Your task to perform on an android device: Open Chrome and go to settings Image 0: 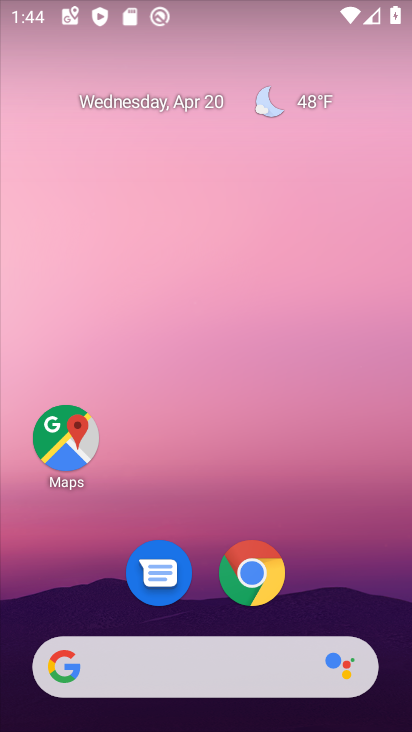
Step 0: drag from (193, 656) to (332, 40)
Your task to perform on an android device: Open Chrome and go to settings Image 1: 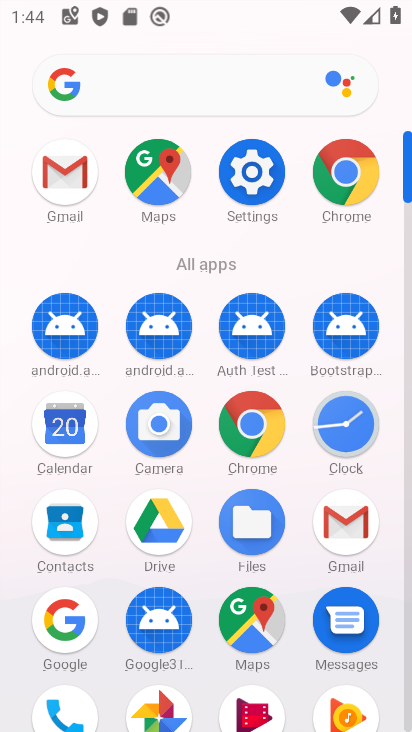
Step 1: click (348, 185)
Your task to perform on an android device: Open Chrome and go to settings Image 2: 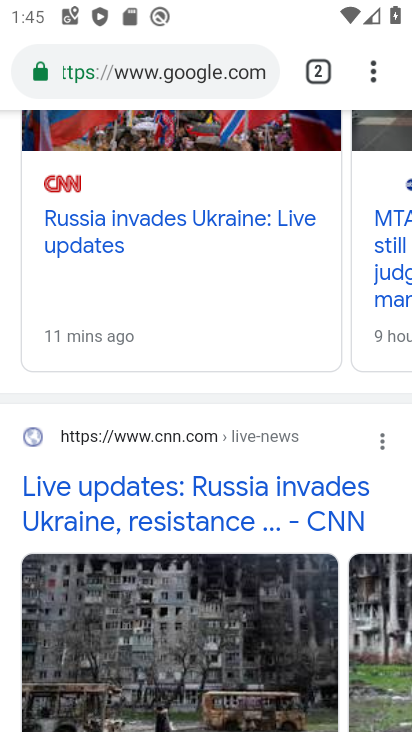
Step 2: click (372, 75)
Your task to perform on an android device: Open Chrome and go to settings Image 3: 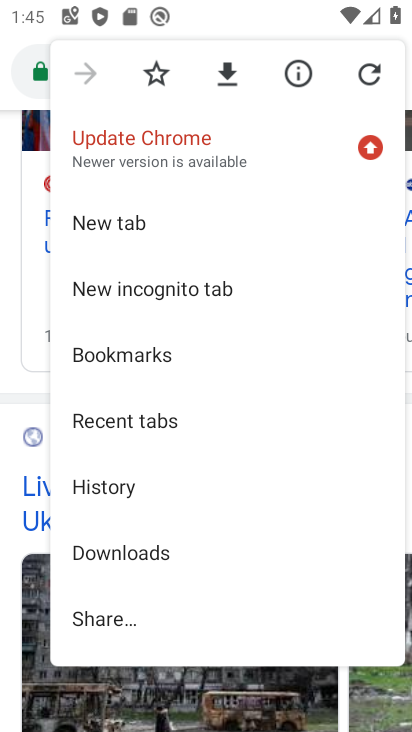
Step 3: drag from (211, 554) to (337, 167)
Your task to perform on an android device: Open Chrome and go to settings Image 4: 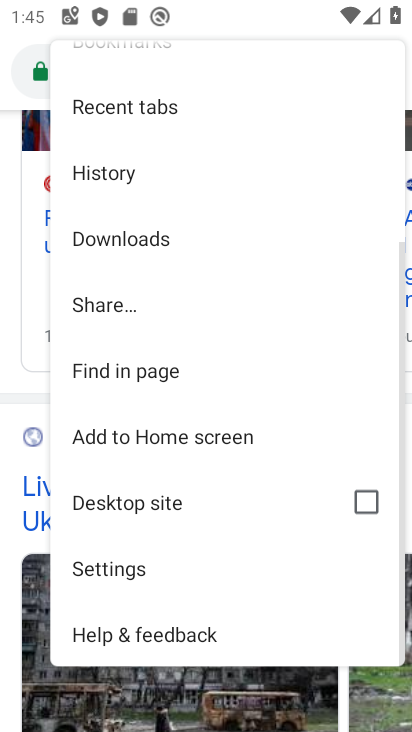
Step 4: click (116, 573)
Your task to perform on an android device: Open Chrome and go to settings Image 5: 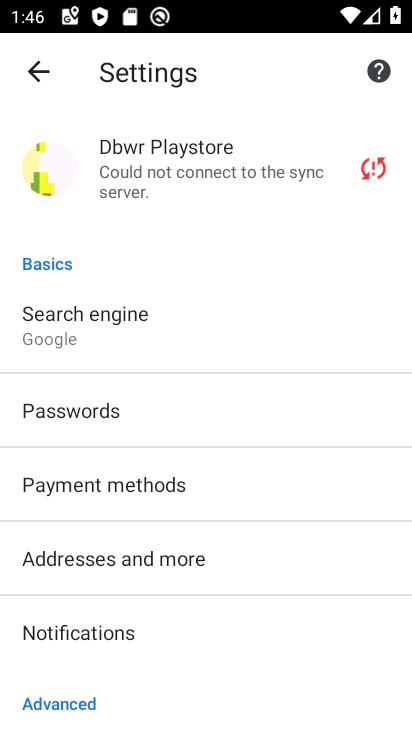
Step 5: task complete